Your task to perform on an android device: Go to Yahoo.com Image 0: 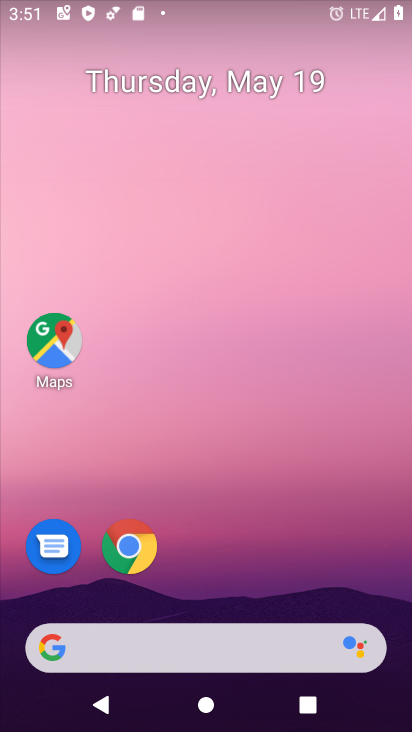
Step 0: click (122, 541)
Your task to perform on an android device: Go to Yahoo.com Image 1: 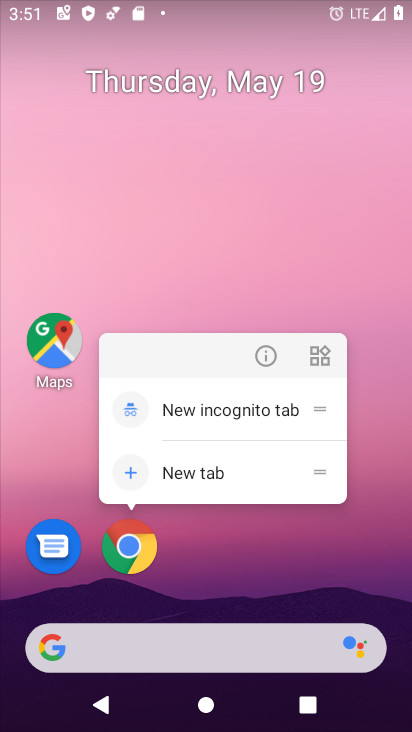
Step 1: click (118, 555)
Your task to perform on an android device: Go to Yahoo.com Image 2: 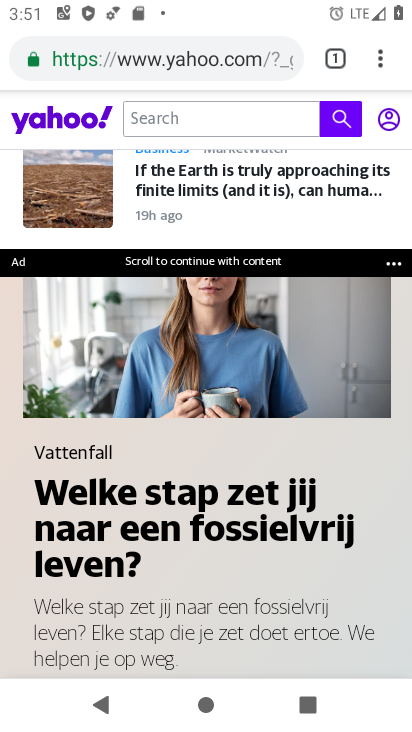
Step 2: task complete